Your task to perform on an android device: empty trash in google photos Image 0: 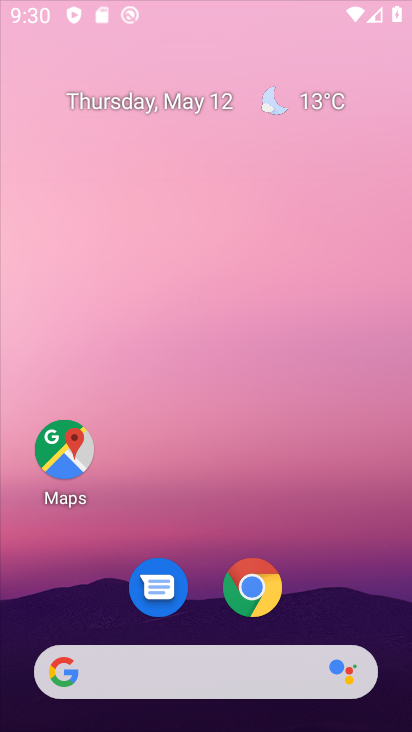
Step 0: click (370, 109)
Your task to perform on an android device: empty trash in google photos Image 1: 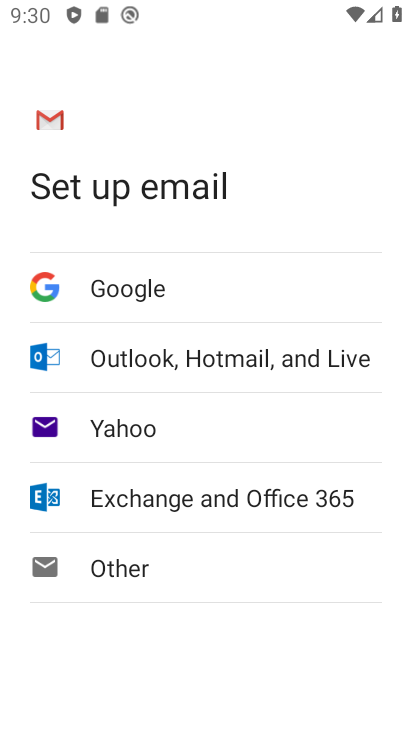
Step 1: press home button
Your task to perform on an android device: empty trash in google photos Image 2: 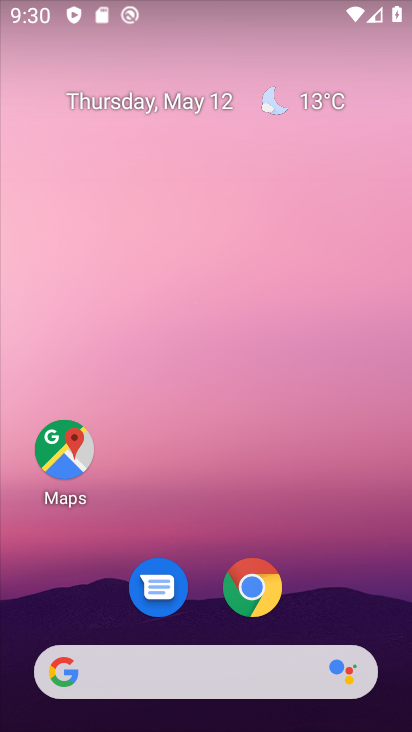
Step 2: drag from (330, 495) to (250, 27)
Your task to perform on an android device: empty trash in google photos Image 3: 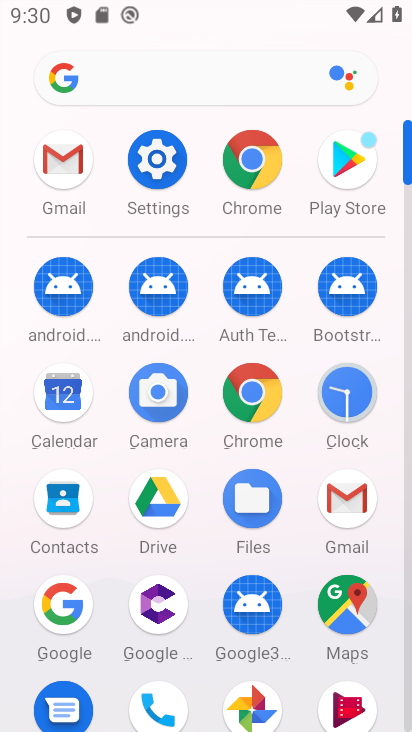
Step 3: drag from (393, 659) to (376, 222)
Your task to perform on an android device: empty trash in google photos Image 4: 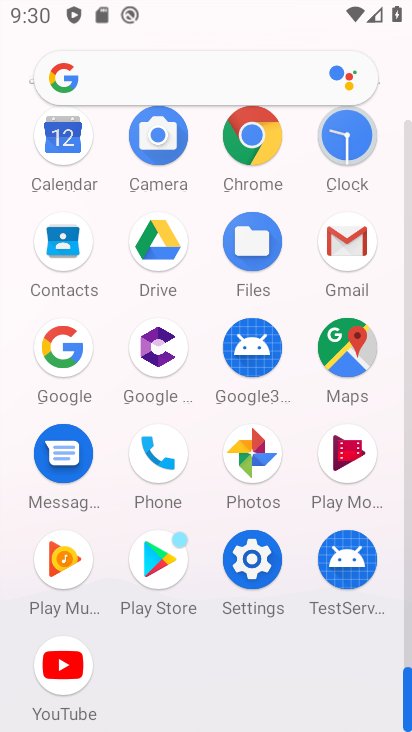
Step 4: click (266, 454)
Your task to perform on an android device: empty trash in google photos Image 5: 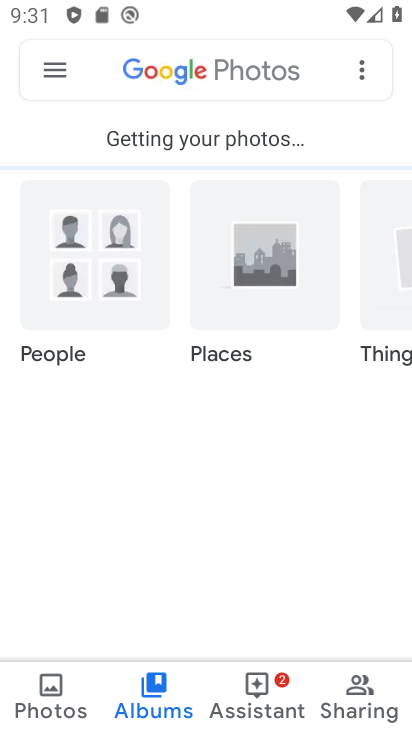
Step 5: click (49, 74)
Your task to perform on an android device: empty trash in google photos Image 6: 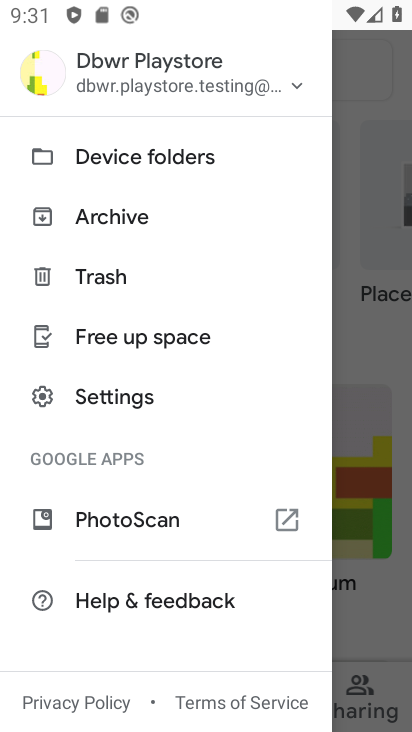
Step 6: click (103, 271)
Your task to perform on an android device: empty trash in google photos Image 7: 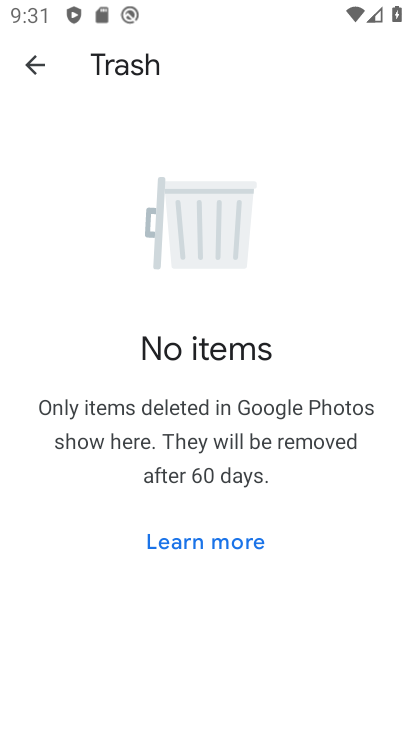
Step 7: task complete